Your task to perform on an android device: Add "jbl charge 4" to the cart on ebay.com, then select checkout. Image 0: 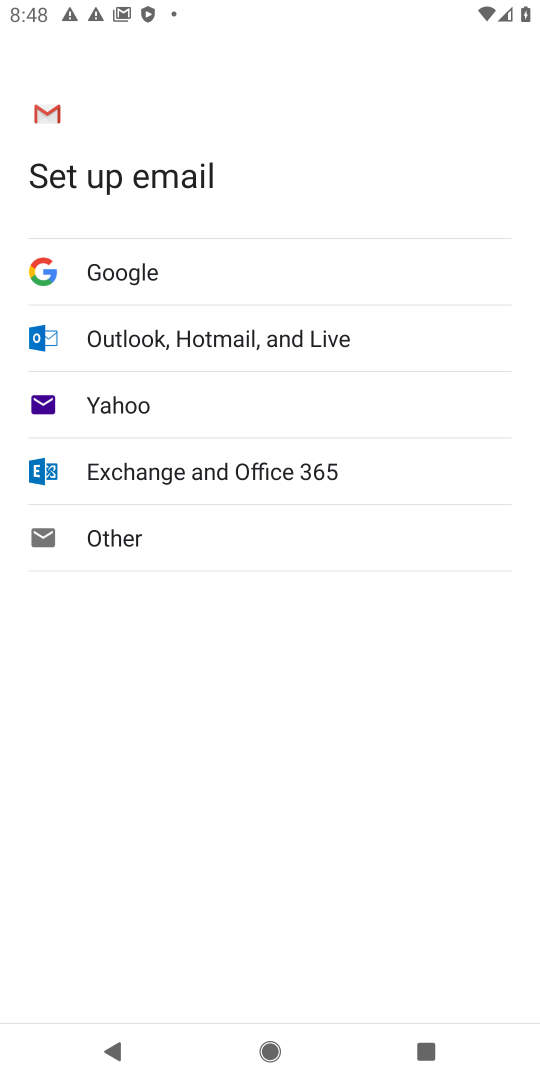
Step 0: press home button
Your task to perform on an android device: Add "jbl charge 4" to the cart on ebay.com, then select checkout. Image 1: 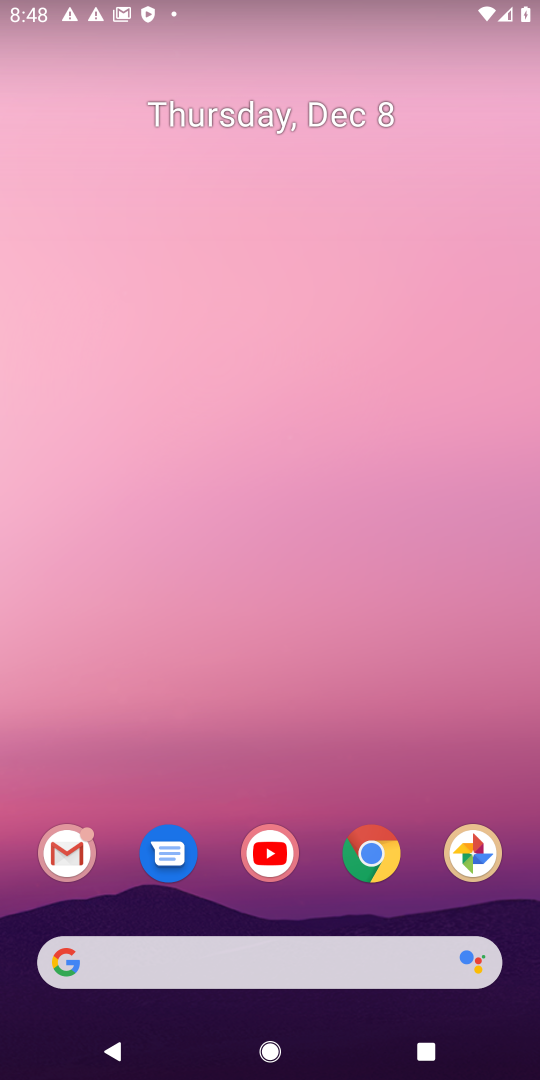
Step 1: click (257, 961)
Your task to perform on an android device: Add "jbl charge 4" to the cart on ebay.com, then select checkout. Image 2: 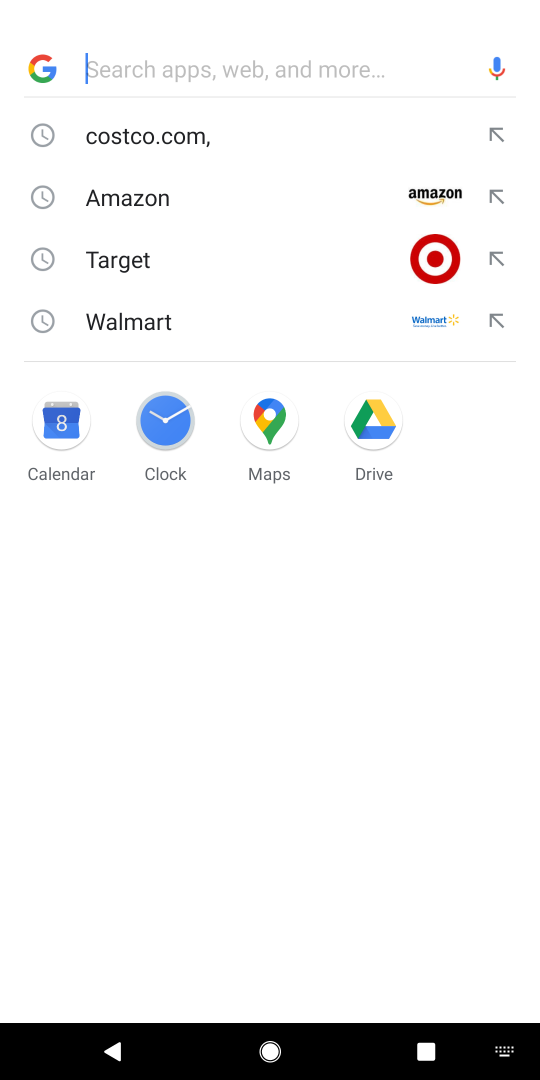
Step 2: type "ebay.com"
Your task to perform on an android device: Add "jbl charge 4" to the cart on ebay.com, then select checkout. Image 3: 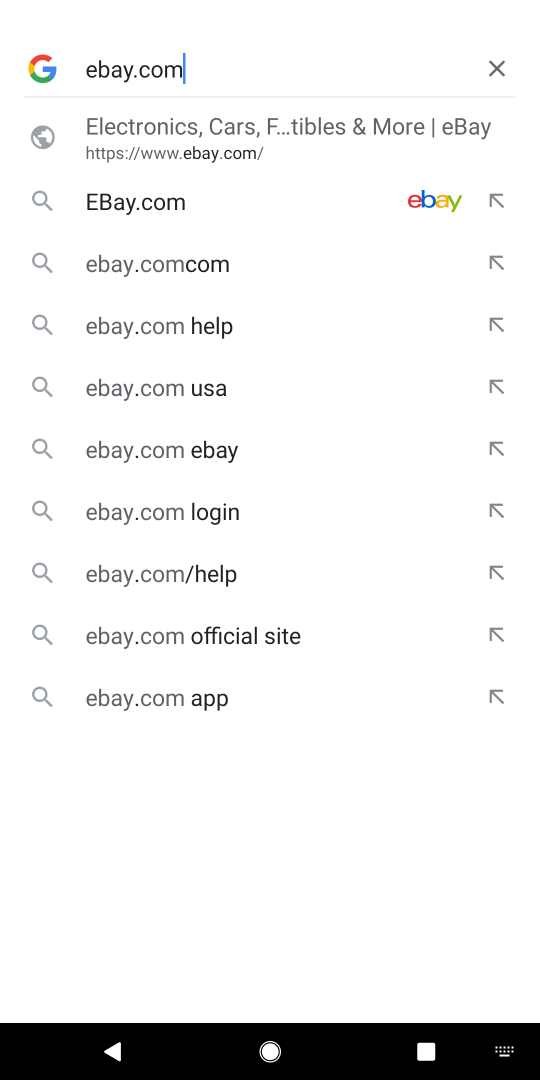
Step 3: click (163, 204)
Your task to perform on an android device: Add "jbl charge 4" to the cart on ebay.com, then select checkout. Image 4: 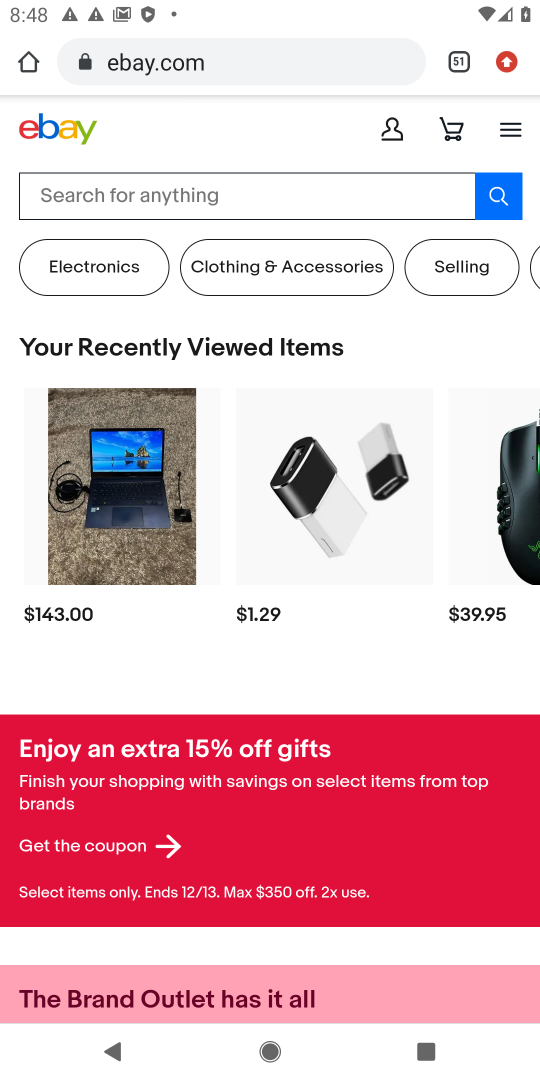
Step 4: click (177, 183)
Your task to perform on an android device: Add "jbl charge 4" to the cart on ebay.com, then select checkout. Image 5: 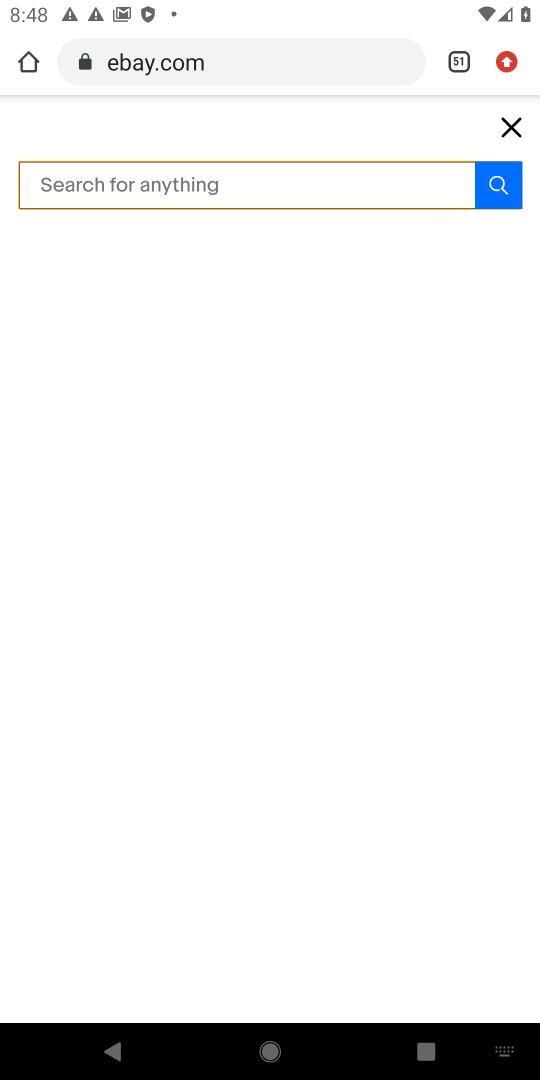
Step 5: type "jbl charge 4 "
Your task to perform on an android device: Add "jbl charge 4" to the cart on ebay.com, then select checkout. Image 6: 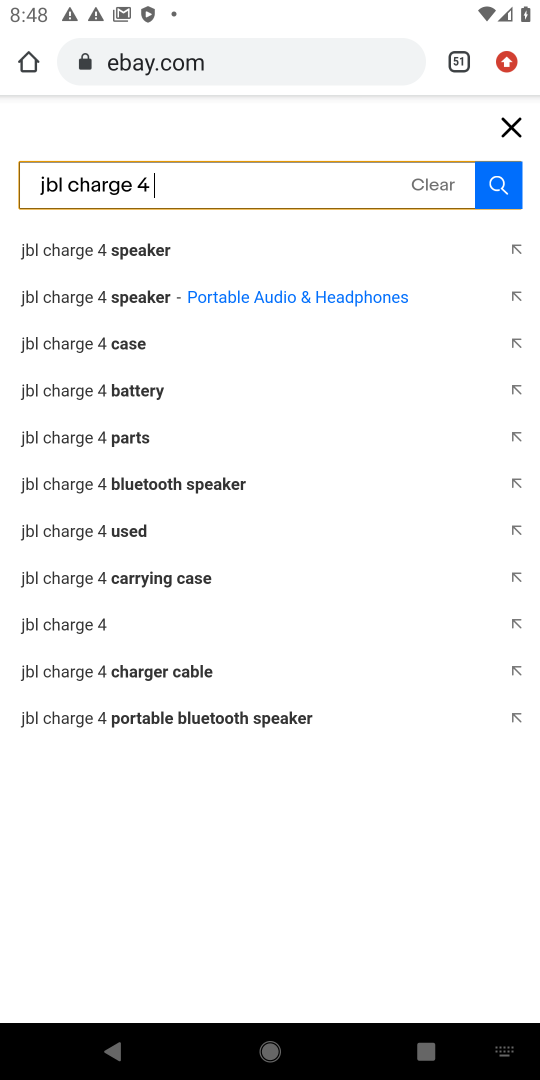
Step 6: click (74, 620)
Your task to perform on an android device: Add "jbl charge 4" to the cart on ebay.com, then select checkout. Image 7: 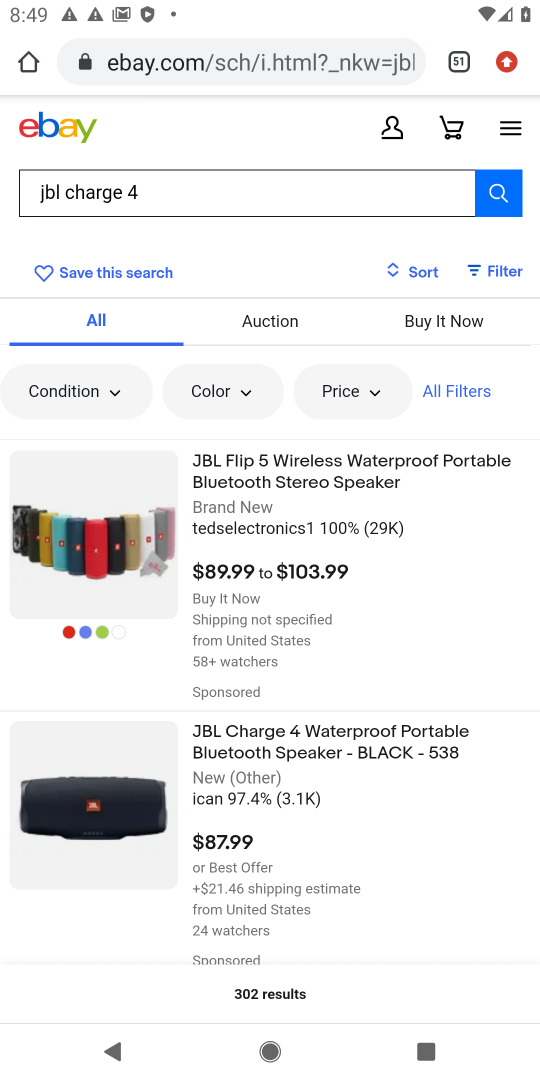
Step 7: click (267, 493)
Your task to perform on an android device: Add "jbl charge 4" to the cart on ebay.com, then select checkout. Image 8: 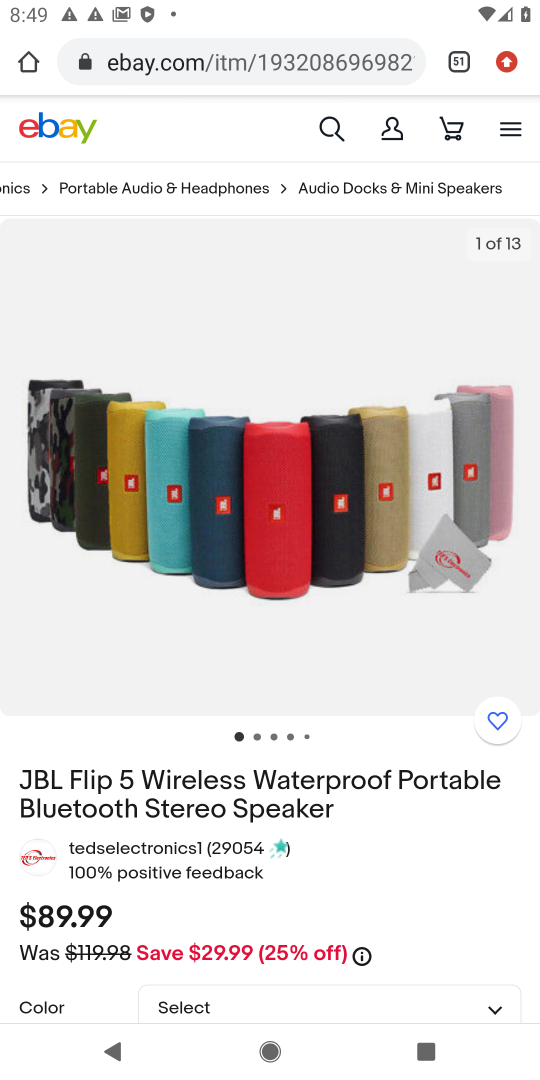
Step 8: drag from (333, 736) to (338, 426)
Your task to perform on an android device: Add "jbl charge 4" to the cart on ebay.com, then select checkout. Image 9: 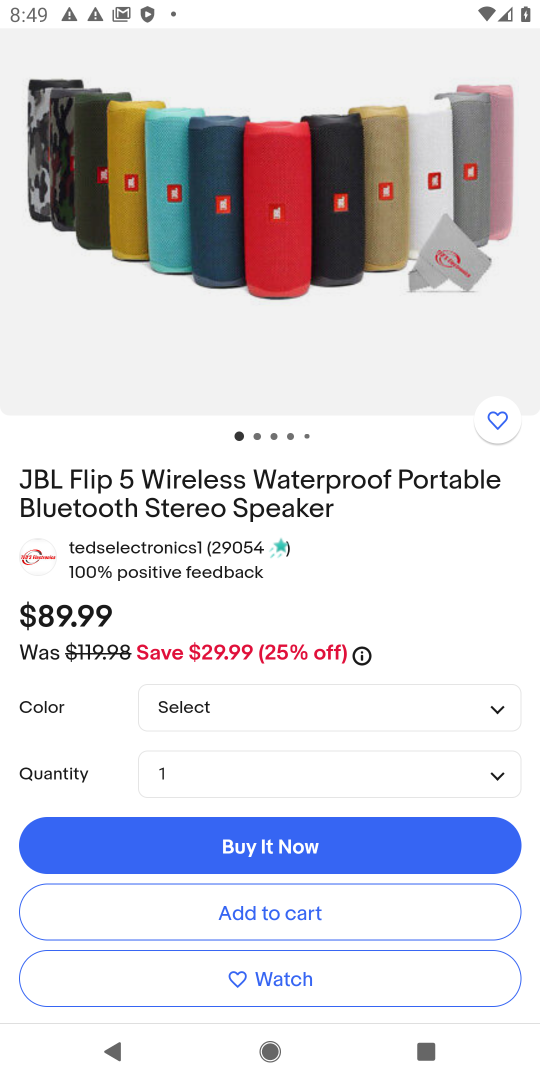
Step 9: click (307, 910)
Your task to perform on an android device: Add "jbl charge 4" to the cart on ebay.com, then select checkout. Image 10: 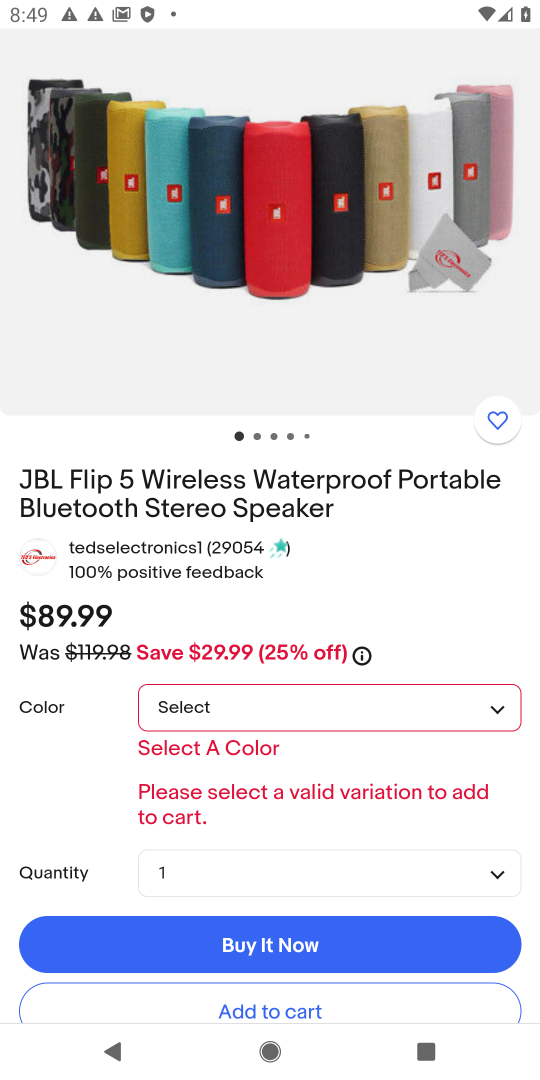
Step 10: click (332, 716)
Your task to perform on an android device: Add "jbl charge 4" to the cart on ebay.com, then select checkout. Image 11: 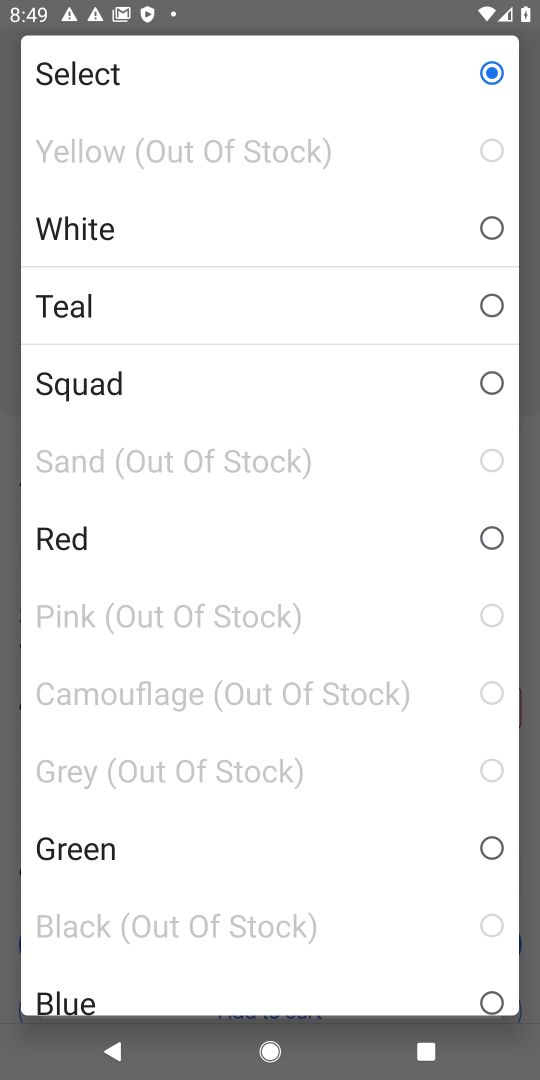
Step 11: click (252, 243)
Your task to perform on an android device: Add "jbl charge 4" to the cart on ebay.com, then select checkout. Image 12: 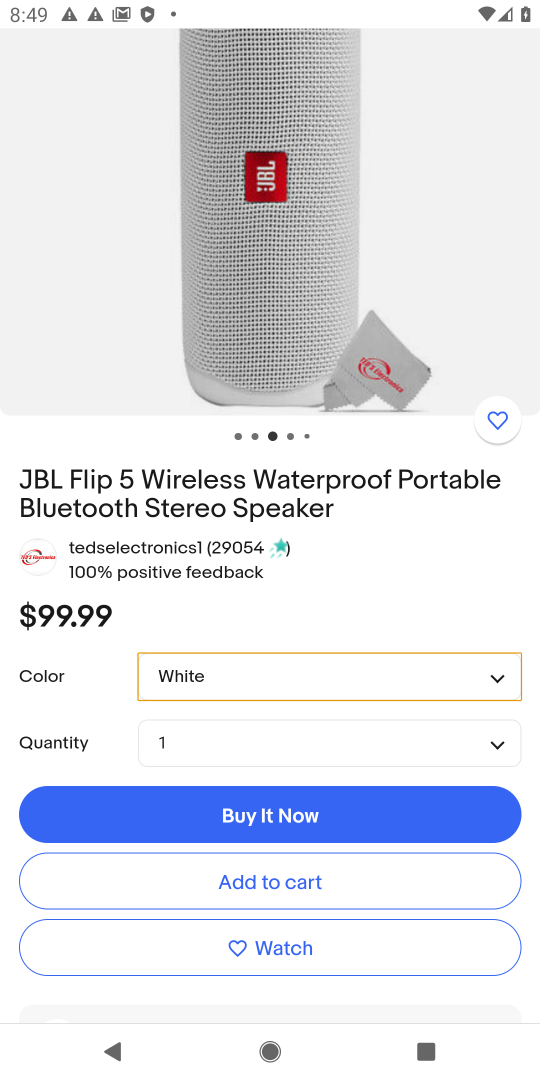
Step 12: click (253, 886)
Your task to perform on an android device: Add "jbl charge 4" to the cart on ebay.com, then select checkout. Image 13: 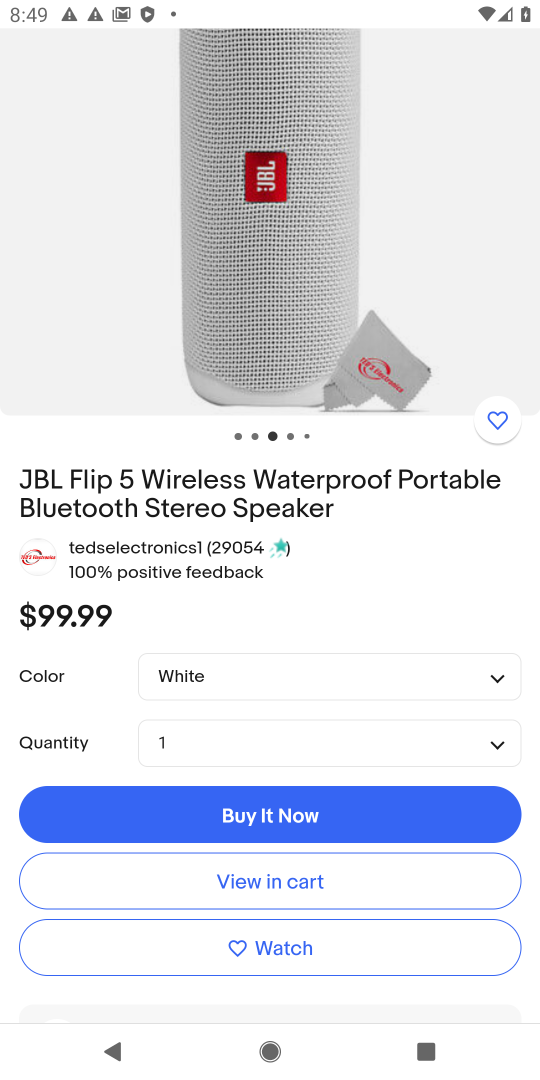
Step 13: click (320, 887)
Your task to perform on an android device: Add "jbl charge 4" to the cart on ebay.com, then select checkout. Image 14: 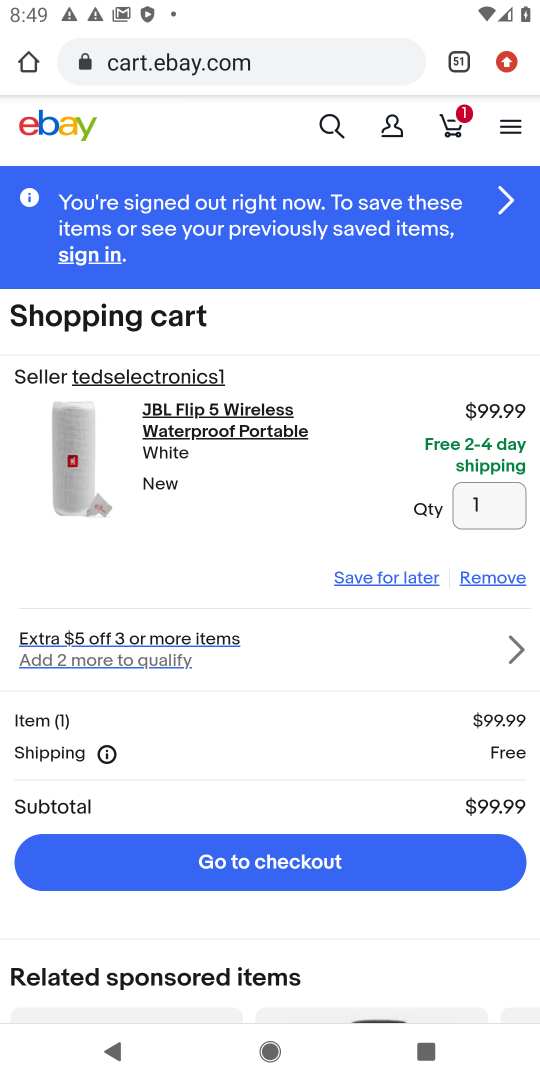
Step 14: click (323, 866)
Your task to perform on an android device: Add "jbl charge 4" to the cart on ebay.com, then select checkout. Image 15: 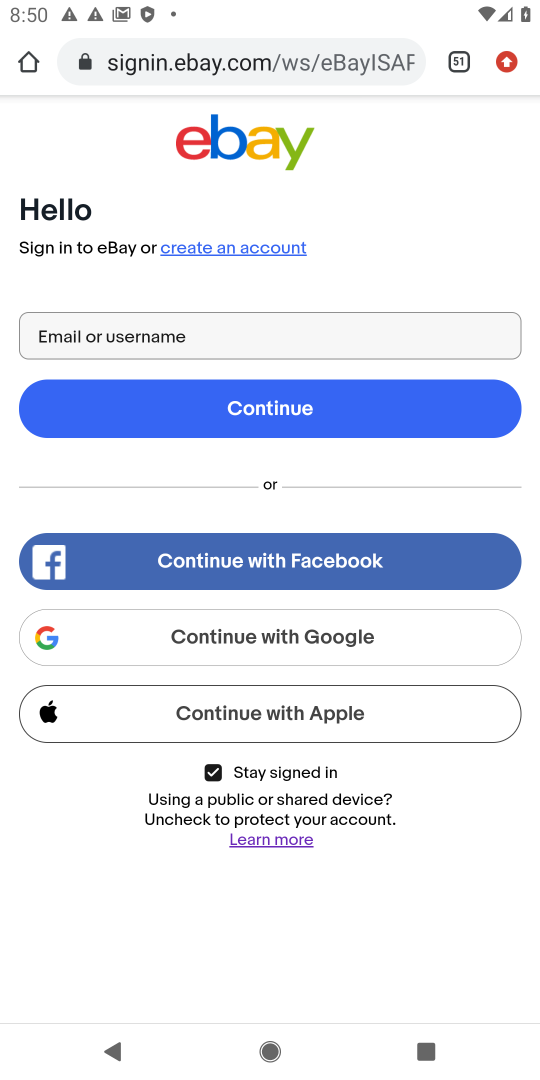
Step 15: task complete